Your task to perform on an android device: Go to Maps Image 0: 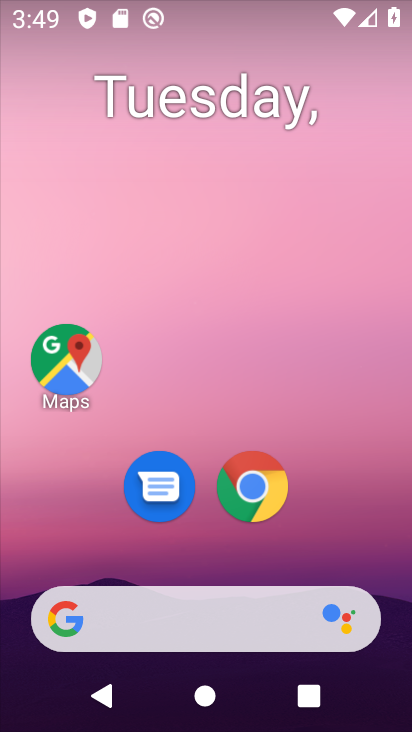
Step 0: click (80, 362)
Your task to perform on an android device: Go to Maps Image 1: 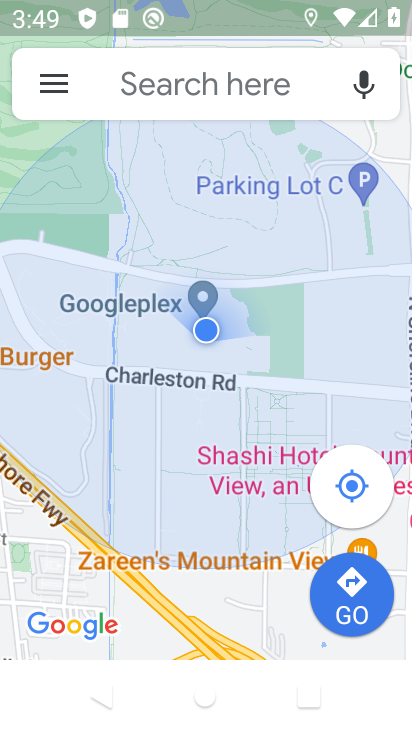
Step 1: task complete